Your task to perform on an android device: turn on translation in the chrome app Image 0: 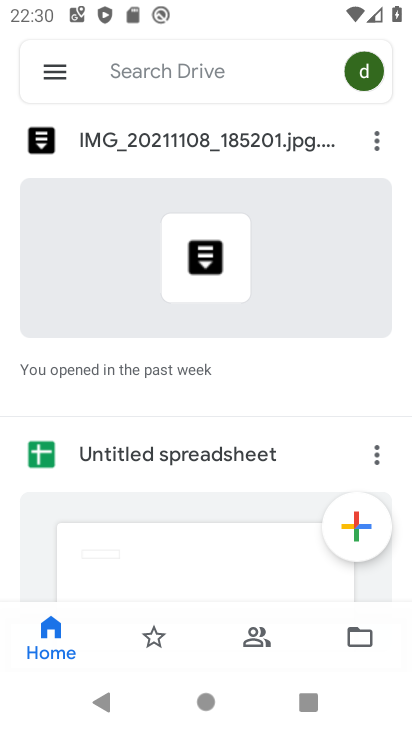
Step 0: press home button
Your task to perform on an android device: turn on translation in the chrome app Image 1: 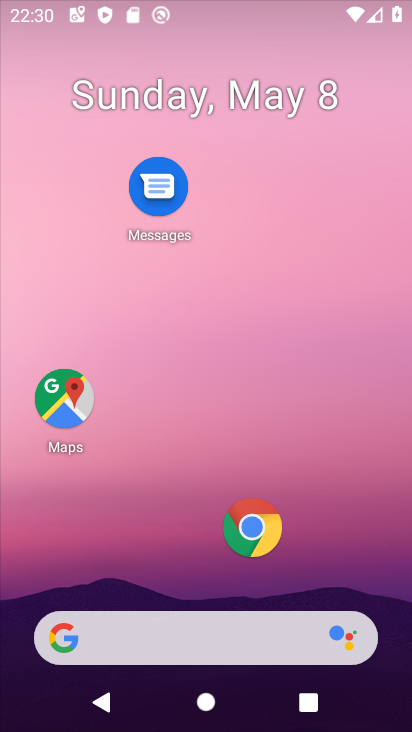
Step 1: drag from (188, 568) to (219, 158)
Your task to perform on an android device: turn on translation in the chrome app Image 2: 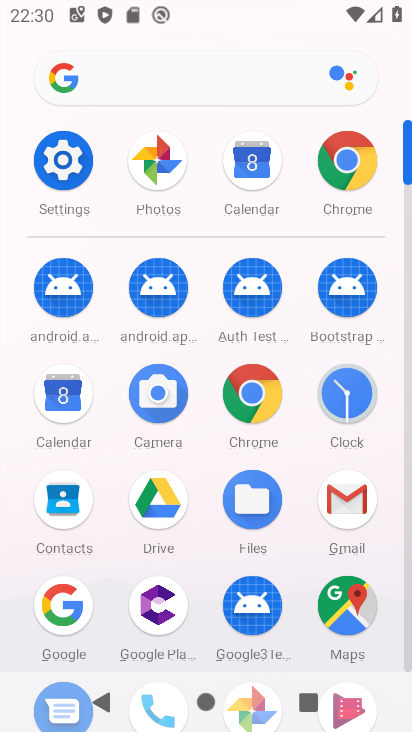
Step 2: click (342, 164)
Your task to perform on an android device: turn on translation in the chrome app Image 3: 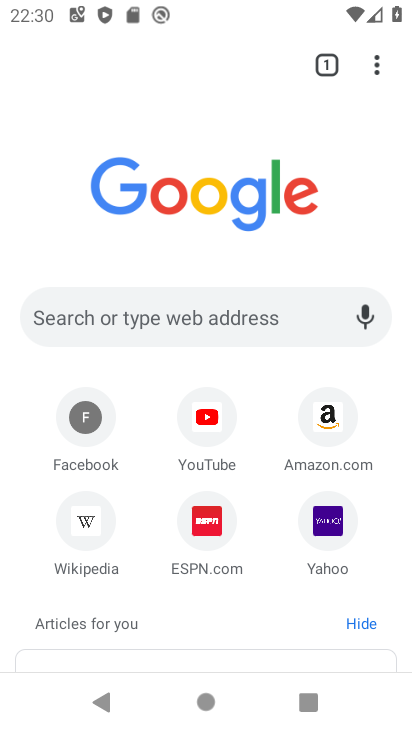
Step 3: click (366, 69)
Your task to perform on an android device: turn on translation in the chrome app Image 4: 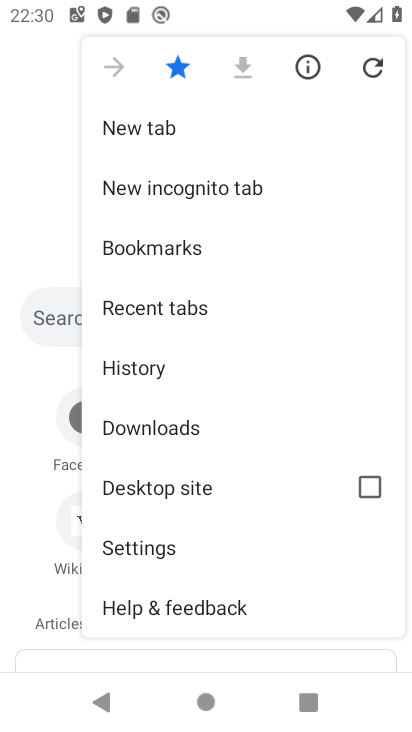
Step 4: drag from (295, 529) to (279, 380)
Your task to perform on an android device: turn on translation in the chrome app Image 5: 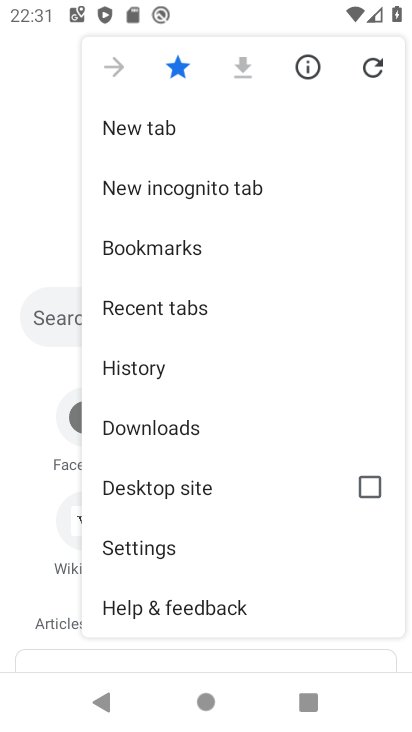
Step 5: click (185, 545)
Your task to perform on an android device: turn on translation in the chrome app Image 6: 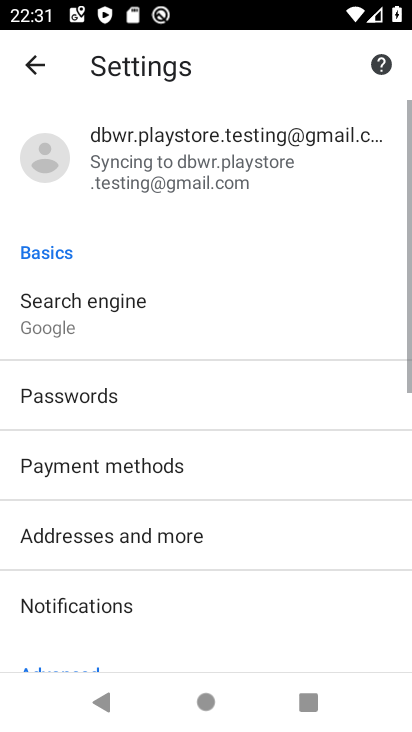
Step 6: drag from (230, 473) to (216, 26)
Your task to perform on an android device: turn on translation in the chrome app Image 7: 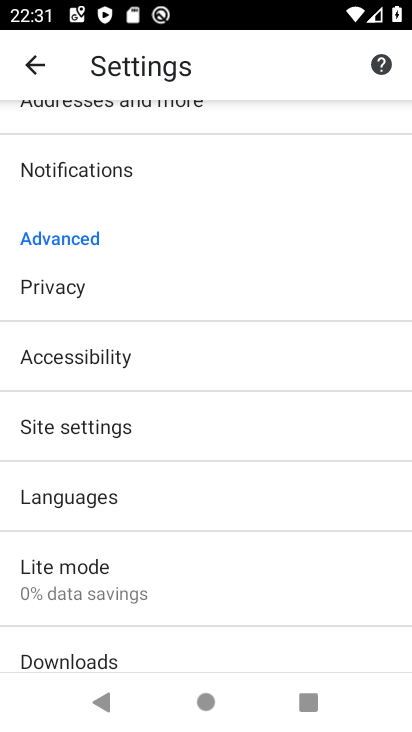
Step 7: click (93, 493)
Your task to perform on an android device: turn on translation in the chrome app Image 8: 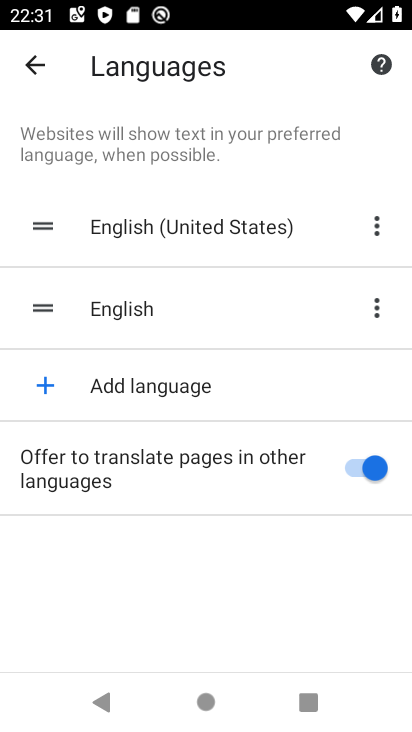
Step 8: task complete